Your task to perform on an android device: What's the weather going to be tomorrow? Image 0: 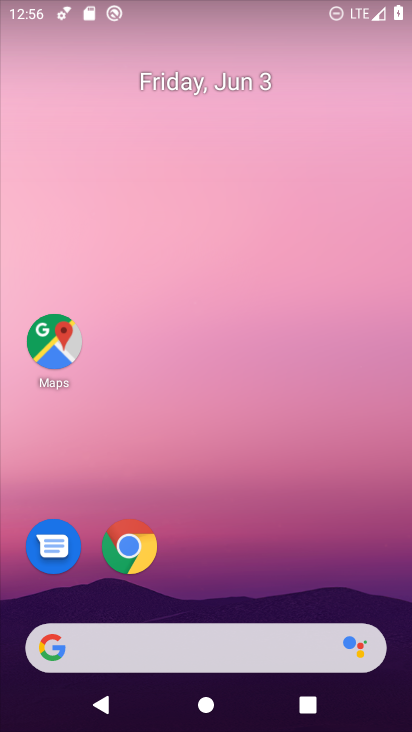
Step 0: drag from (267, 564) to (186, 90)
Your task to perform on an android device: What's the weather going to be tomorrow? Image 1: 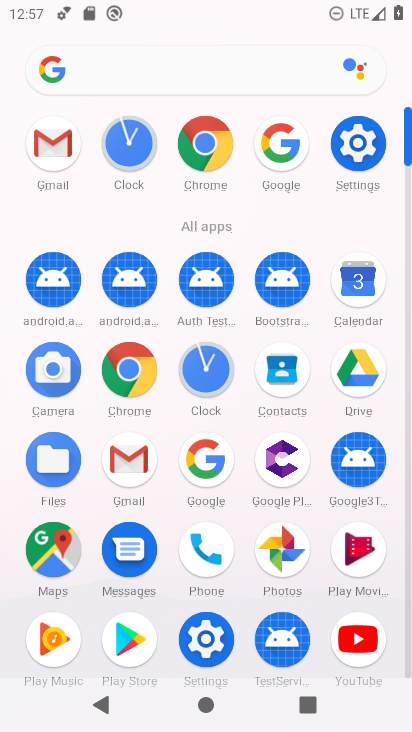
Step 1: click (276, 144)
Your task to perform on an android device: What's the weather going to be tomorrow? Image 2: 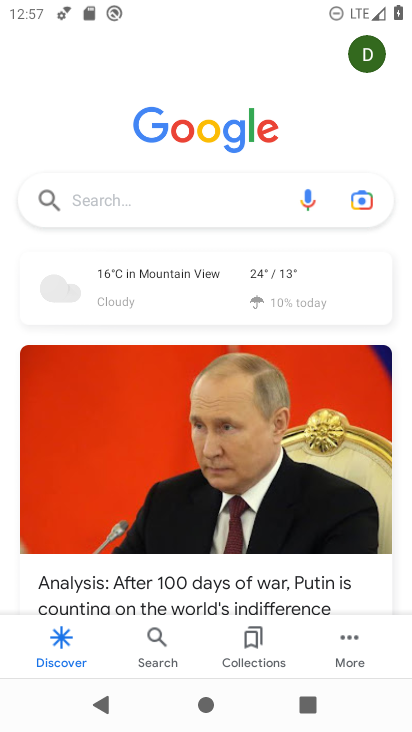
Step 2: click (242, 277)
Your task to perform on an android device: What's the weather going to be tomorrow? Image 3: 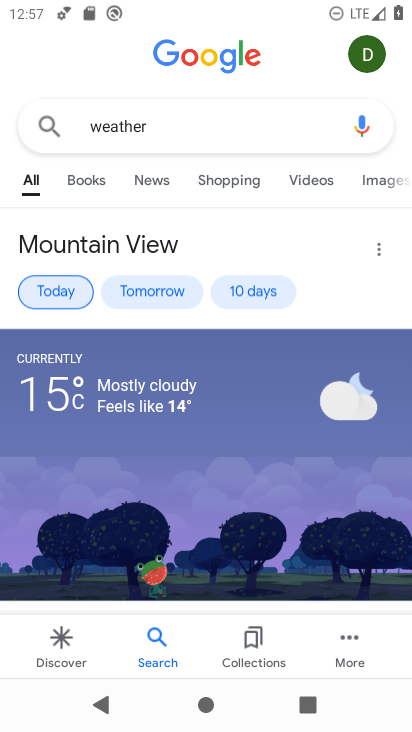
Step 3: click (136, 289)
Your task to perform on an android device: What's the weather going to be tomorrow? Image 4: 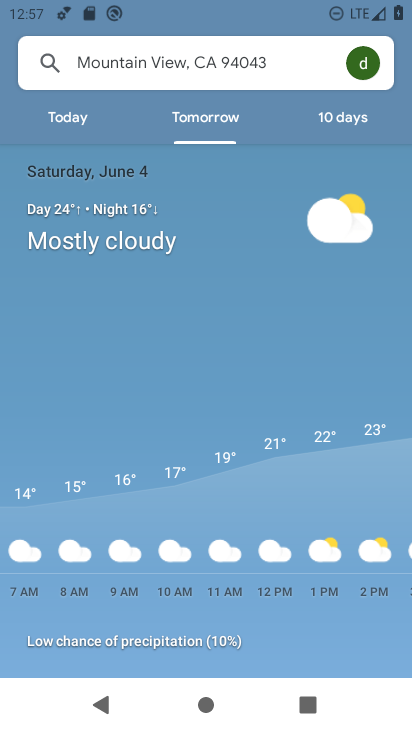
Step 4: task complete